Your task to perform on an android device: Clear all items from cart on newegg. Add "razer nari" to the cart on newegg, then select checkout. Image 0: 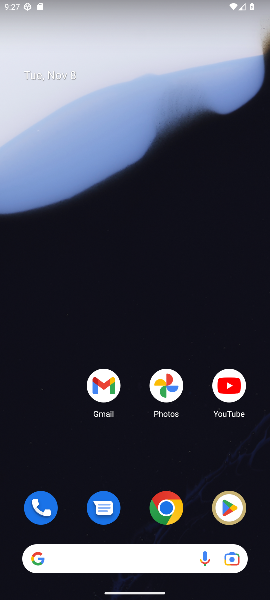
Step 0: click (156, 508)
Your task to perform on an android device: Clear all items from cart on newegg. Add "razer nari" to the cart on newegg, then select checkout. Image 1: 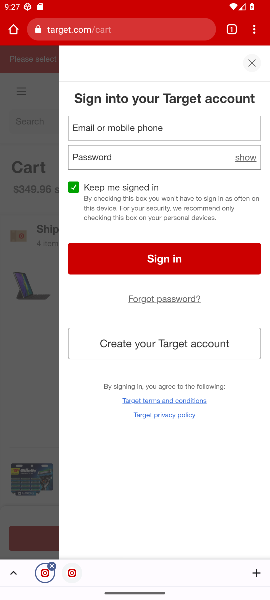
Step 1: task complete